Your task to perform on an android device: set an alarm Image 0: 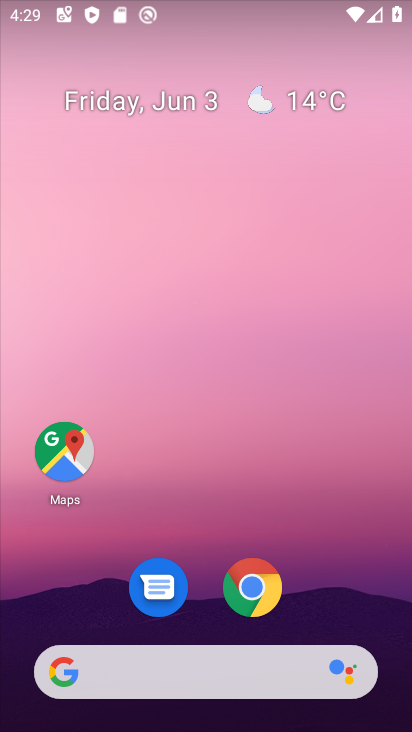
Step 0: drag from (152, 651) to (128, 320)
Your task to perform on an android device: set an alarm Image 1: 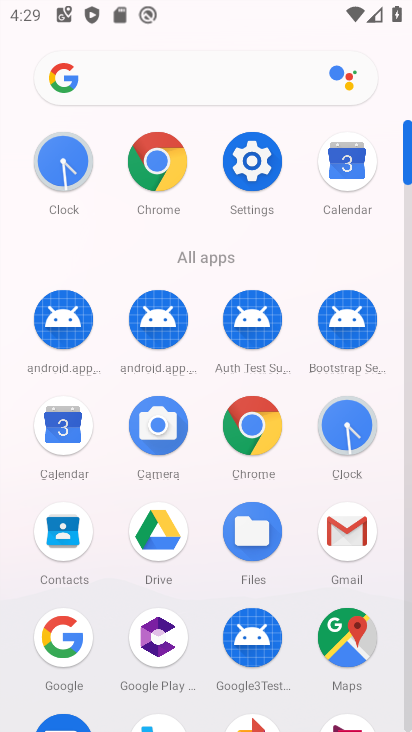
Step 1: click (356, 439)
Your task to perform on an android device: set an alarm Image 2: 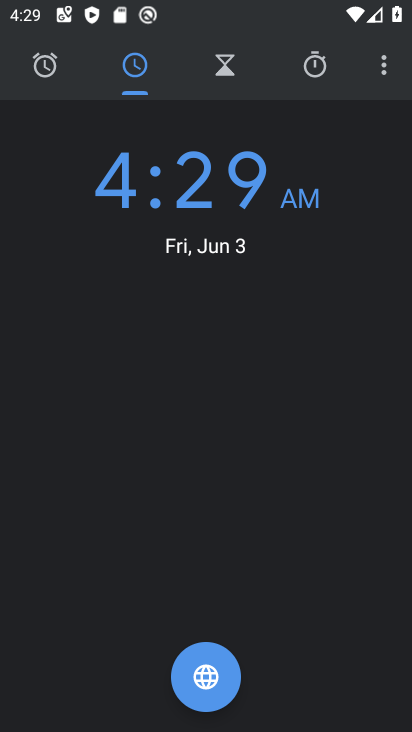
Step 2: click (387, 62)
Your task to perform on an android device: set an alarm Image 3: 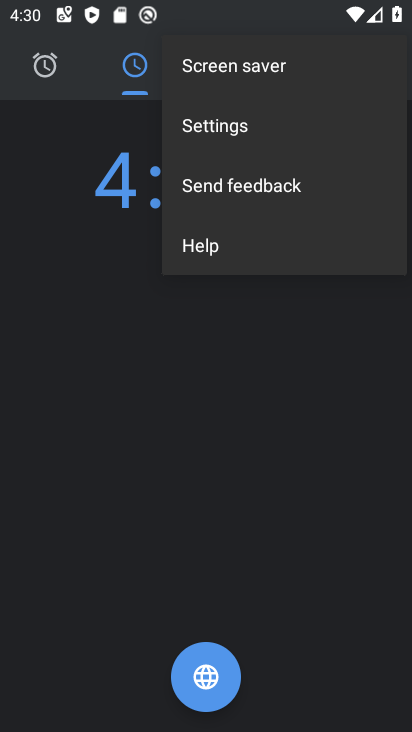
Step 3: click (56, 69)
Your task to perform on an android device: set an alarm Image 4: 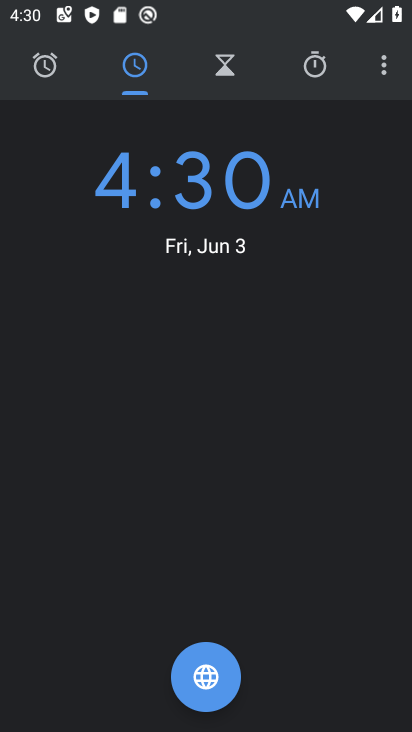
Step 4: click (50, 64)
Your task to perform on an android device: set an alarm Image 5: 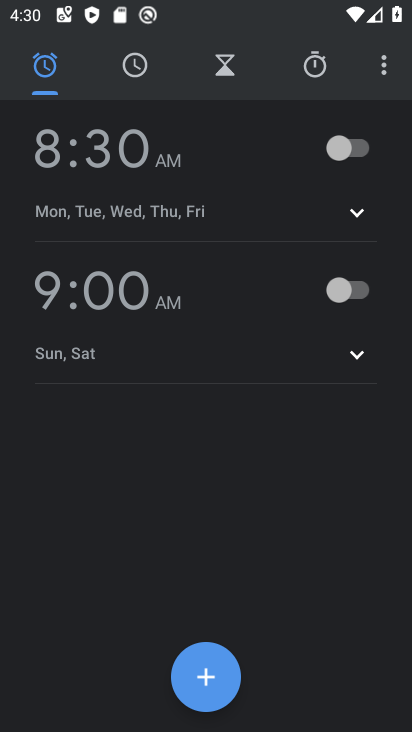
Step 5: click (349, 290)
Your task to perform on an android device: set an alarm Image 6: 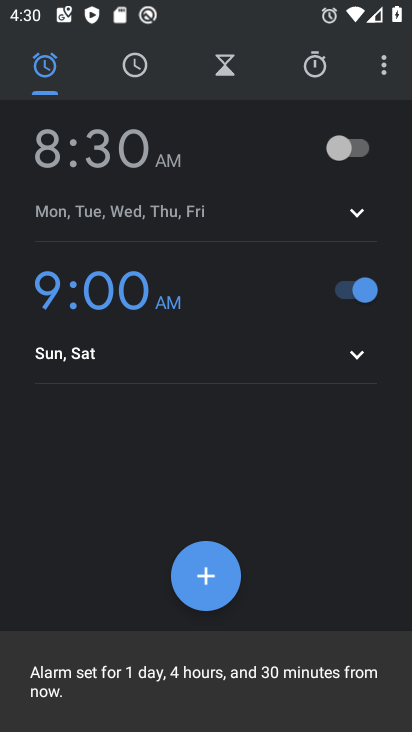
Step 6: task complete